Your task to perform on an android device: open chrome privacy settings Image 0: 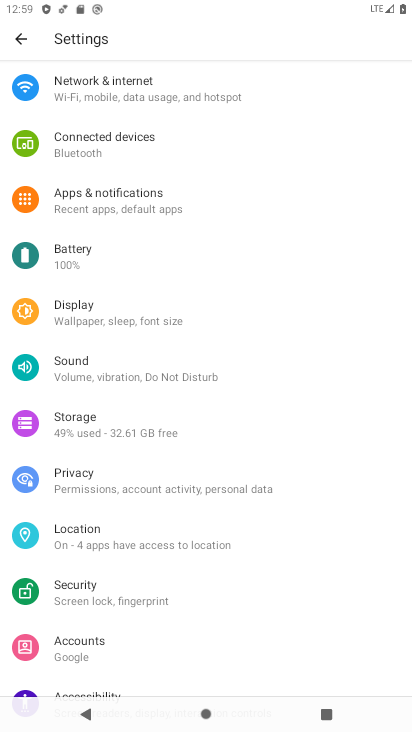
Step 0: press home button
Your task to perform on an android device: open chrome privacy settings Image 1: 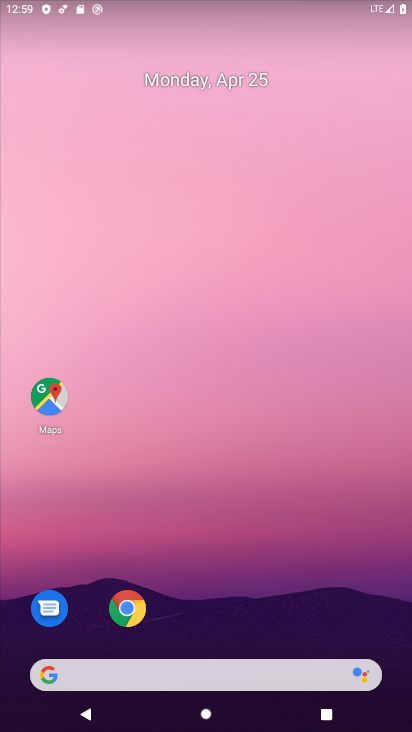
Step 1: click (123, 602)
Your task to perform on an android device: open chrome privacy settings Image 2: 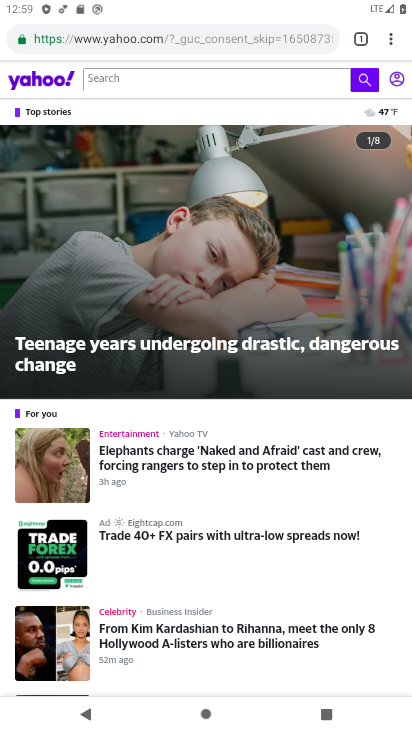
Step 2: click (390, 33)
Your task to perform on an android device: open chrome privacy settings Image 3: 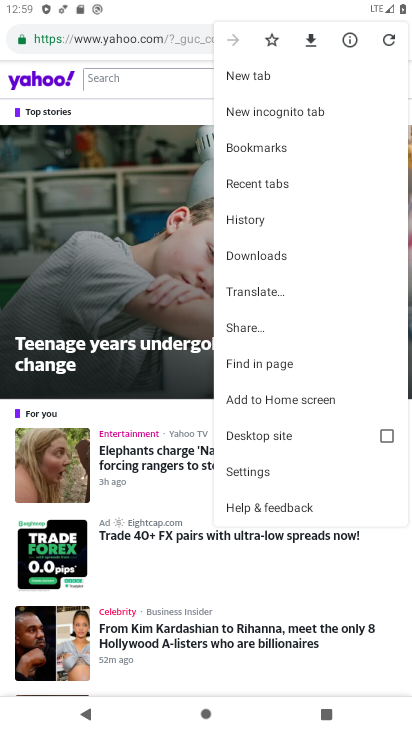
Step 3: click (272, 467)
Your task to perform on an android device: open chrome privacy settings Image 4: 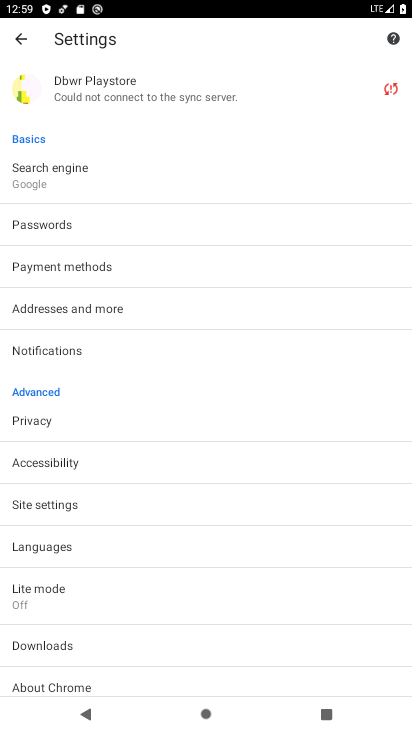
Step 4: click (102, 433)
Your task to perform on an android device: open chrome privacy settings Image 5: 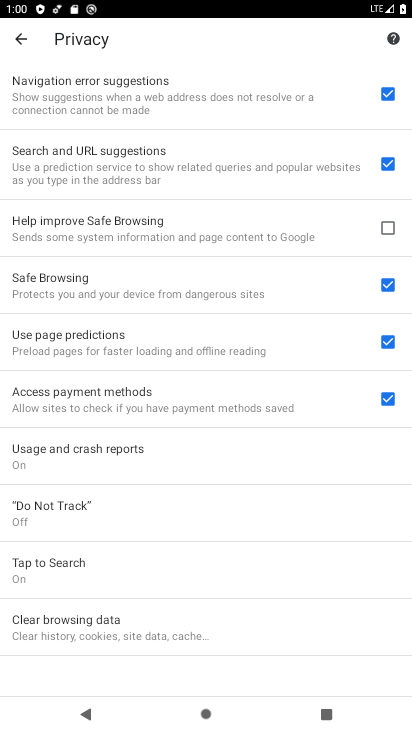
Step 5: task complete